Your task to perform on an android device: Open eBay Image 0: 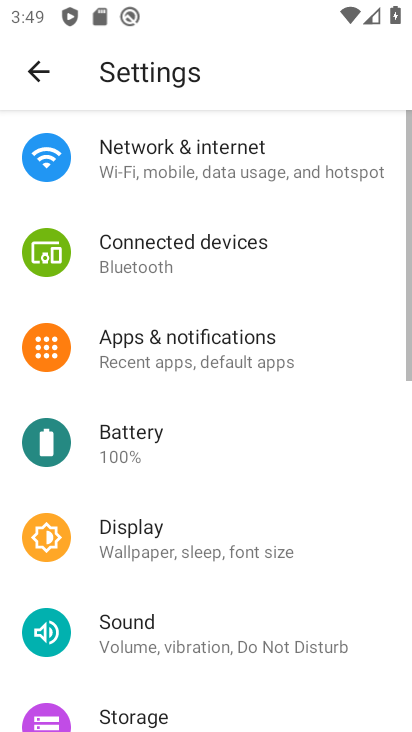
Step 0: press home button
Your task to perform on an android device: Open eBay Image 1: 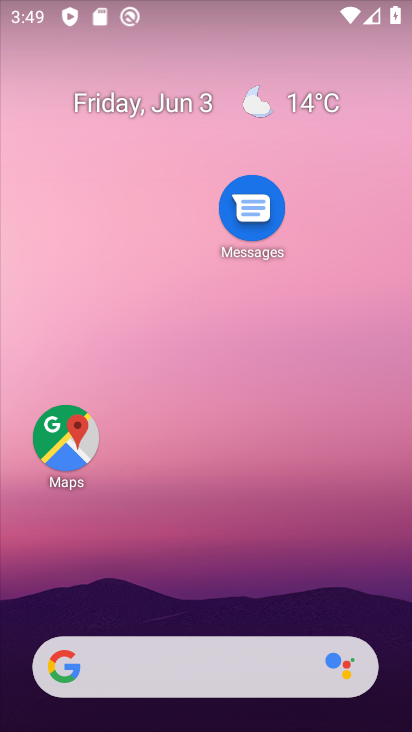
Step 1: drag from (199, 566) to (224, 310)
Your task to perform on an android device: Open eBay Image 2: 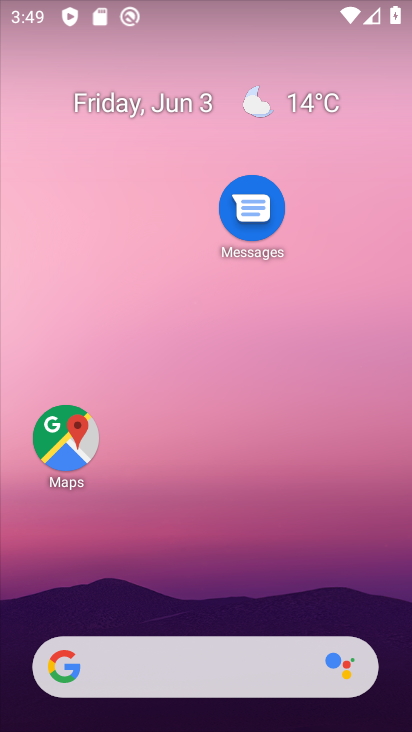
Step 2: drag from (202, 624) to (241, 227)
Your task to perform on an android device: Open eBay Image 3: 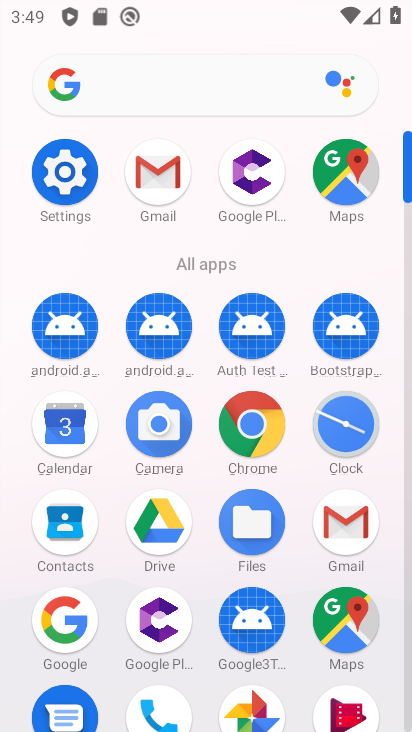
Step 3: click (255, 431)
Your task to perform on an android device: Open eBay Image 4: 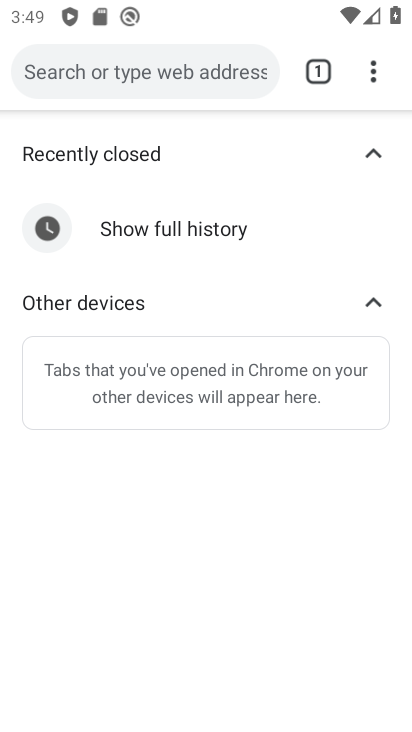
Step 4: press back button
Your task to perform on an android device: Open eBay Image 5: 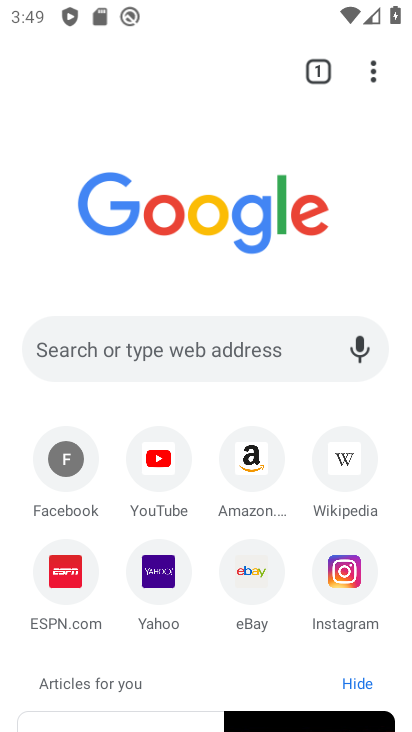
Step 5: click (258, 579)
Your task to perform on an android device: Open eBay Image 6: 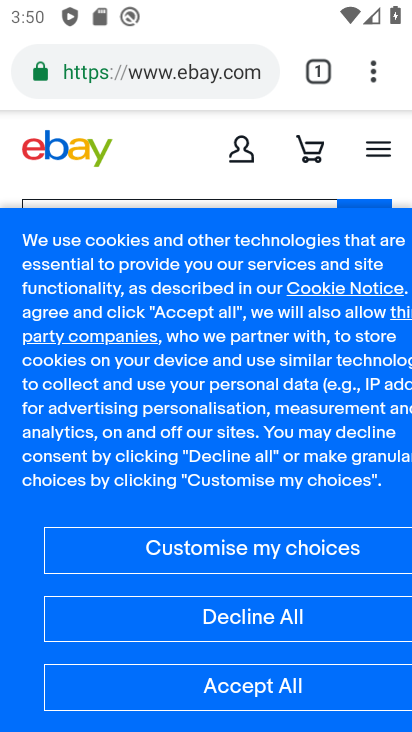
Step 6: task complete